Your task to perform on an android device: Go to Maps Image 0: 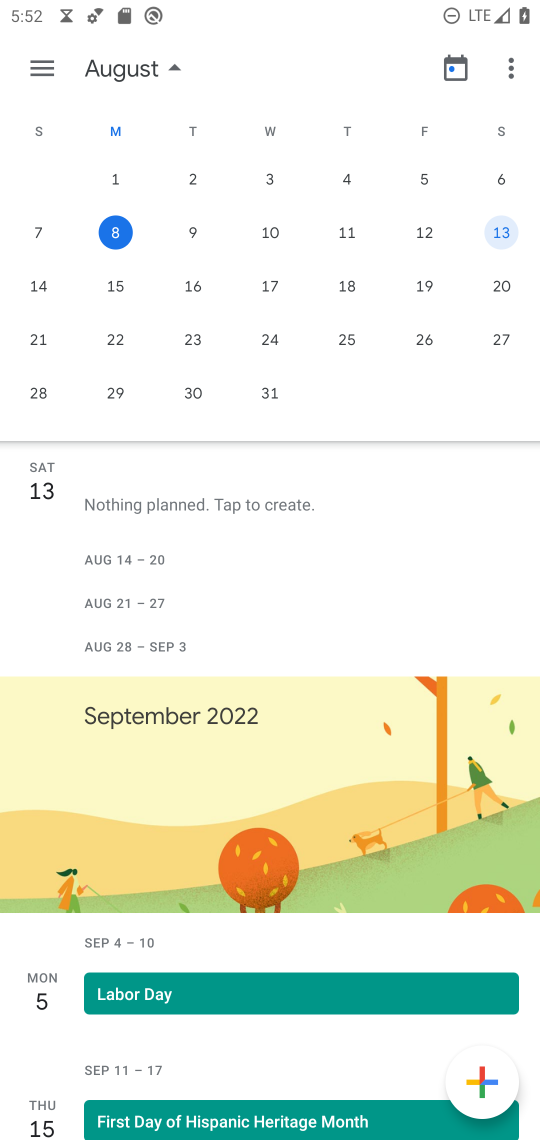
Step 0: press home button
Your task to perform on an android device: Go to Maps Image 1: 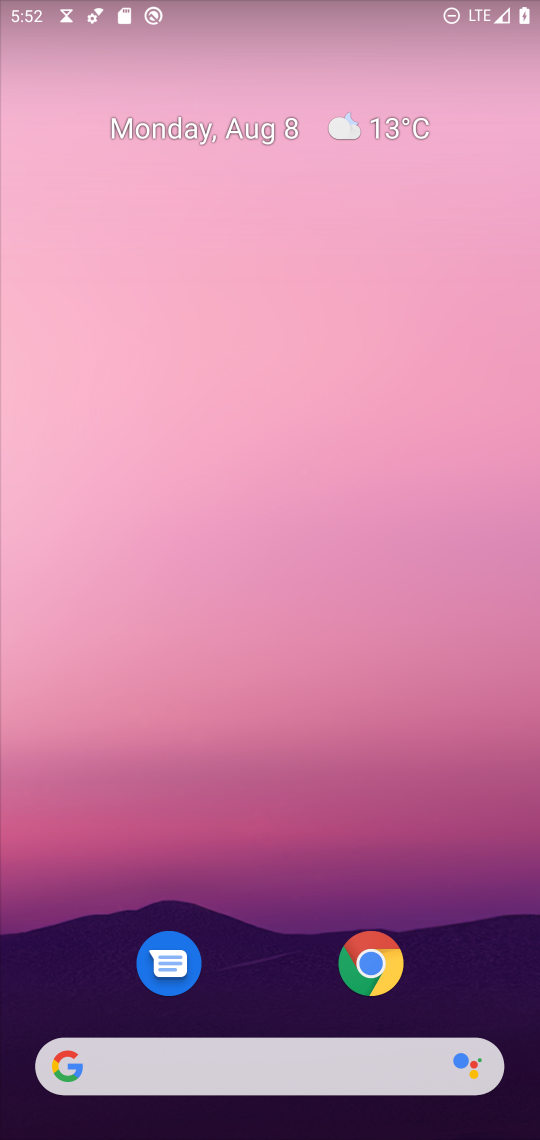
Step 1: drag from (240, 987) to (240, 234)
Your task to perform on an android device: Go to Maps Image 2: 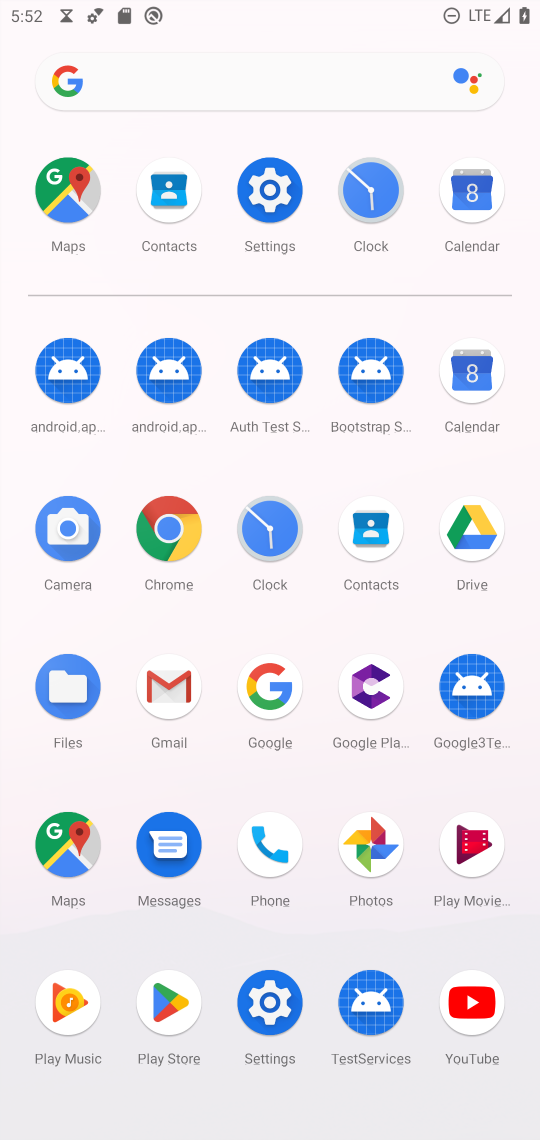
Step 2: click (79, 176)
Your task to perform on an android device: Go to Maps Image 3: 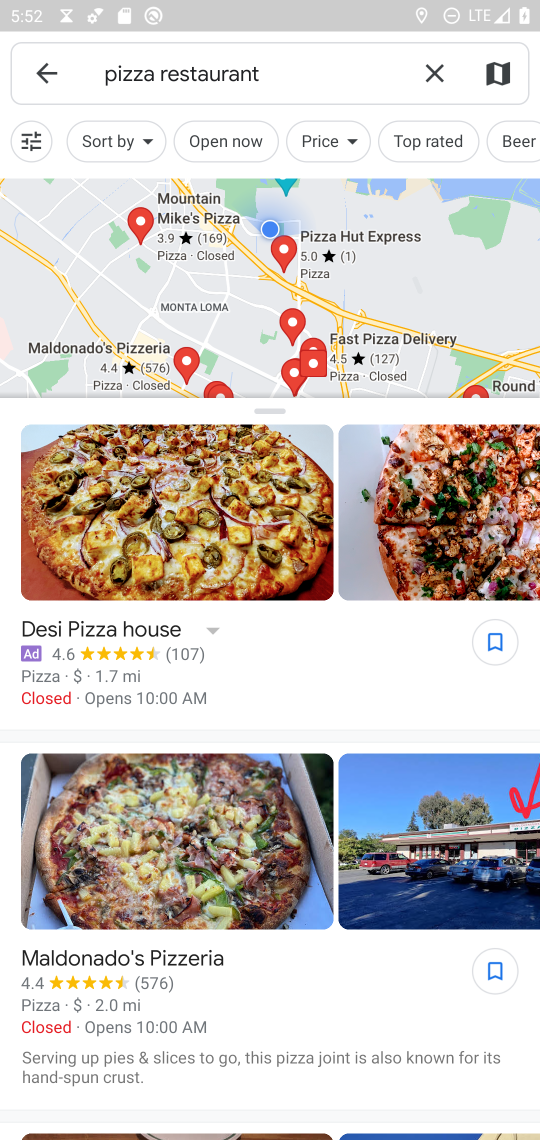
Step 3: task complete